Your task to perform on an android device: Search for seafood restaurants on Google Maps Image 0: 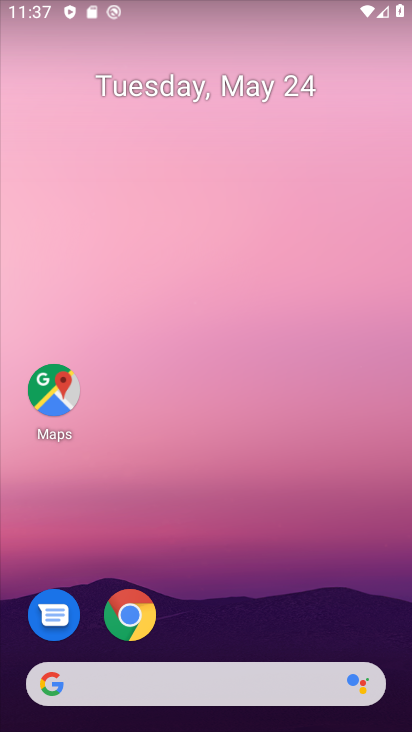
Step 0: click (54, 391)
Your task to perform on an android device: Search for seafood restaurants on Google Maps Image 1: 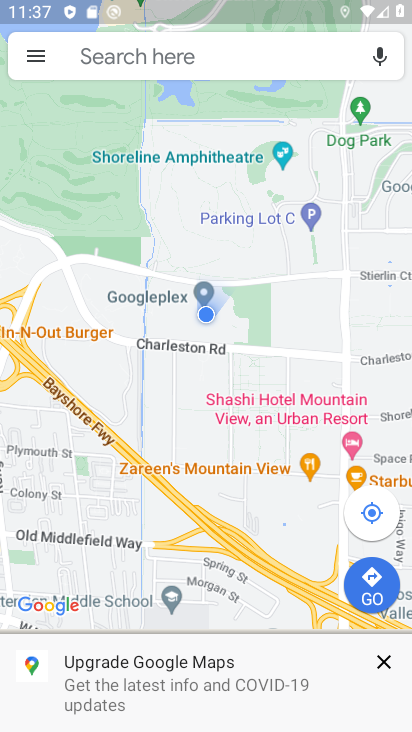
Step 1: click (211, 56)
Your task to perform on an android device: Search for seafood restaurants on Google Maps Image 2: 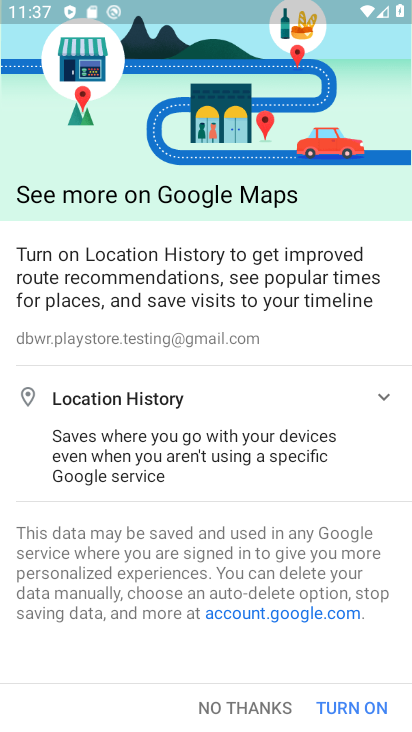
Step 2: click (264, 713)
Your task to perform on an android device: Search for seafood restaurants on Google Maps Image 3: 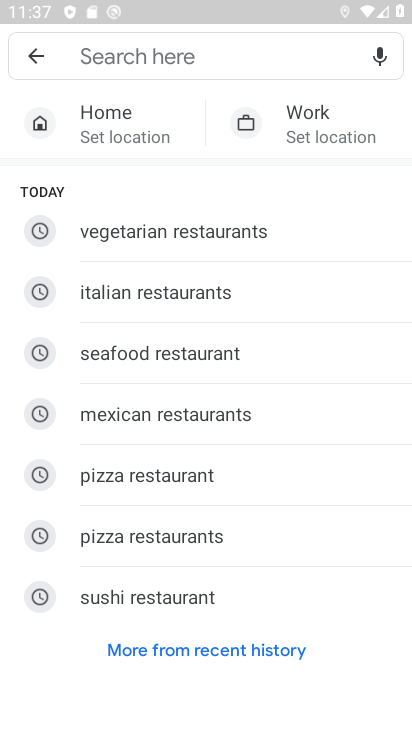
Step 3: click (135, 57)
Your task to perform on an android device: Search for seafood restaurants on Google Maps Image 4: 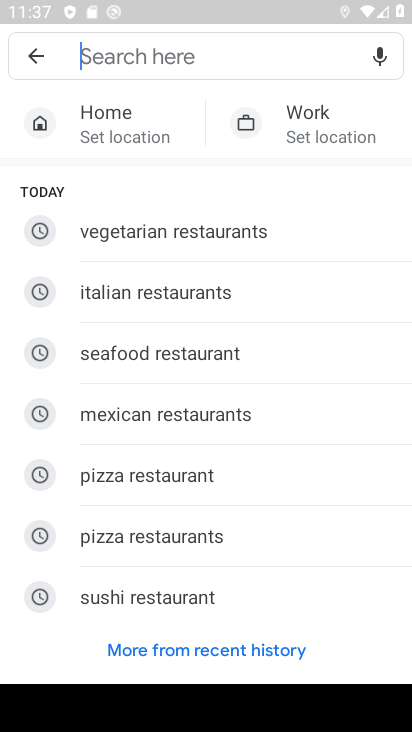
Step 4: type "seafood restaurants"
Your task to perform on an android device: Search for seafood restaurants on Google Maps Image 5: 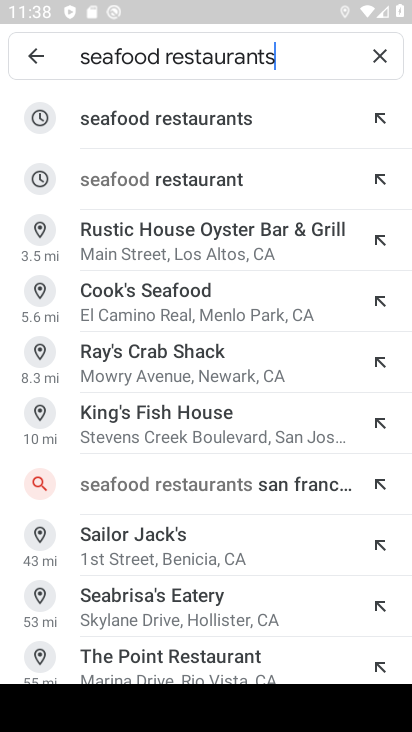
Step 5: click (126, 118)
Your task to perform on an android device: Search for seafood restaurants on Google Maps Image 6: 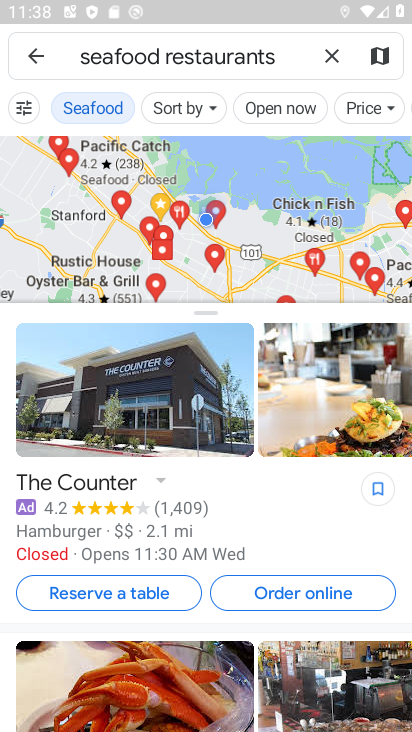
Step 6: task complete